Your task to perform on an android device: toggle data saver in the chrome app Image 0: 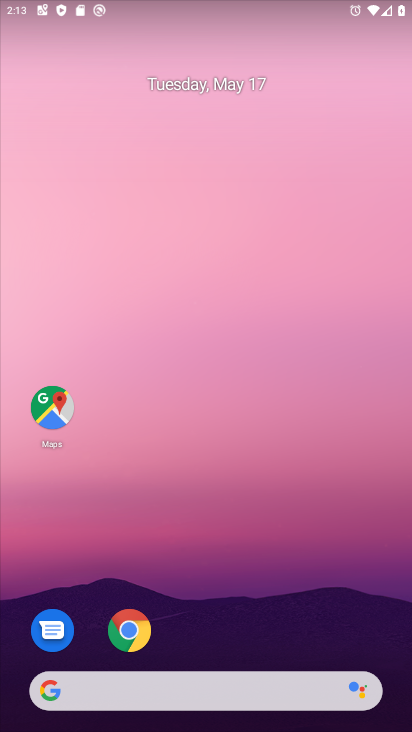
Step 0: drag from (299, 630) to (292, 184)
Your task to perform on an android device: toggle data saver in the chrome app Image 1: 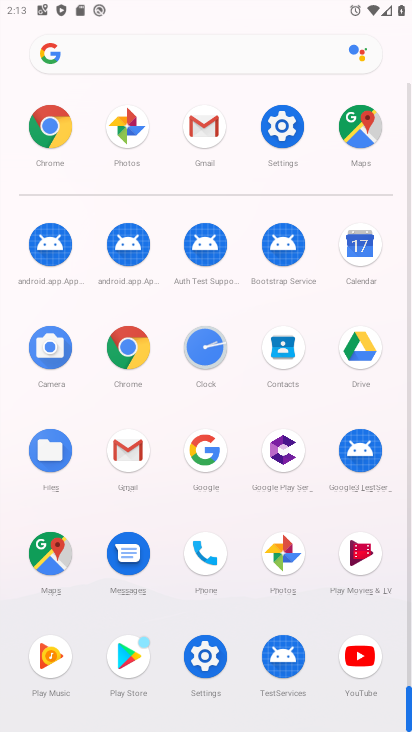
Step 1: click (125, 357)
Your task to perform on an android device: toggle data saver in the chrome app Image 2: 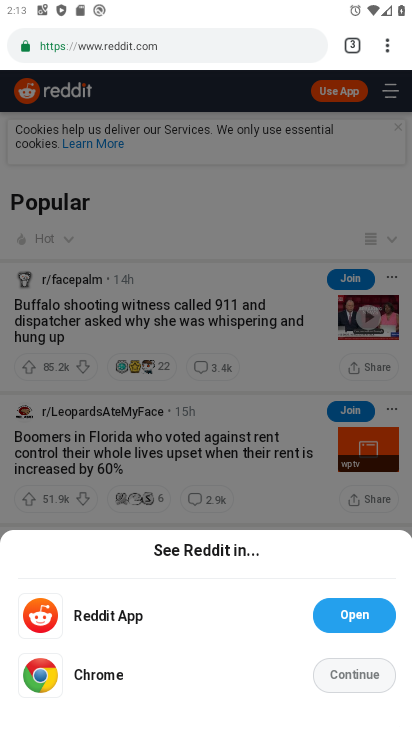
Step 2: drag from (385, 48) to (267, 563)
Your task to perform on an android device: toggle data saver in the chrome app Image 3: 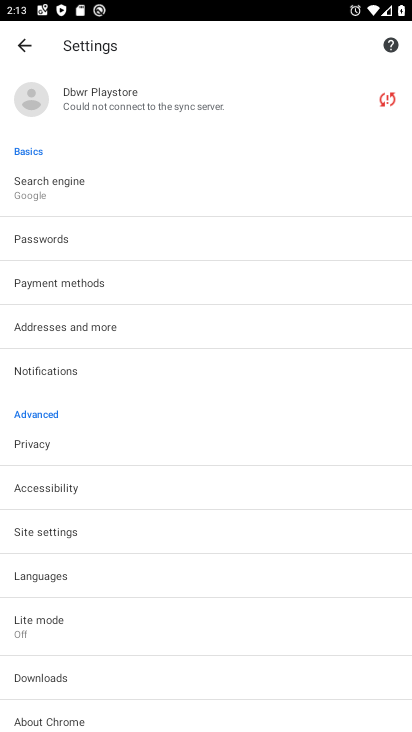
Step 3: drag from (238, 686) to (205, 333)
Your task to perform on an android device: toggle data saver in the chrome app Image 4: 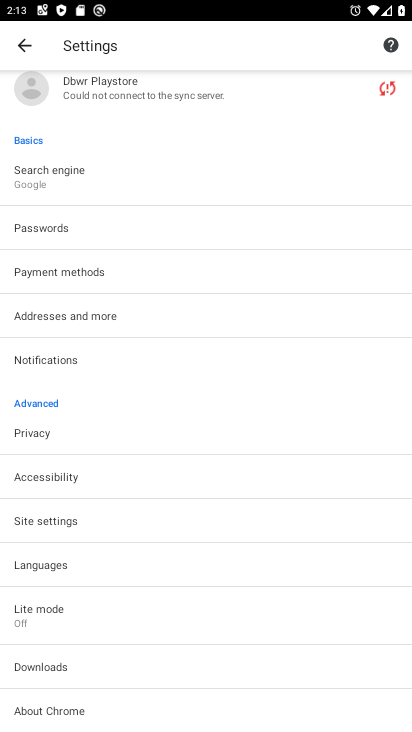
Step 4: drag from (248, 679) to (290, 245)
Your task to perform on an android device: toggle data saver in the chrome app Image 5: 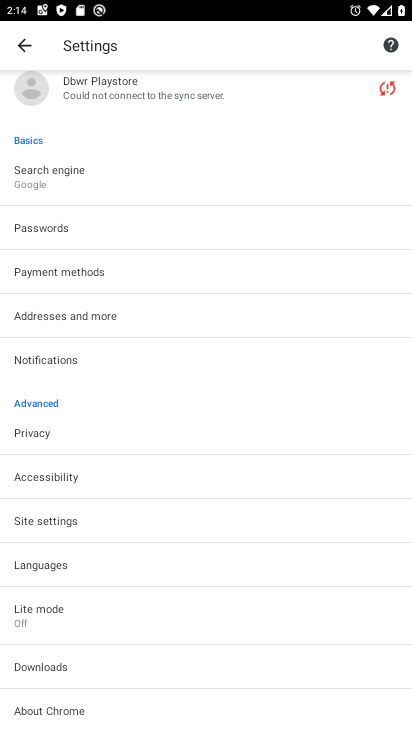
Step 5: click (151, 620)
Your task to perform on an android device: toggle data saver in the chrome app Image 6: 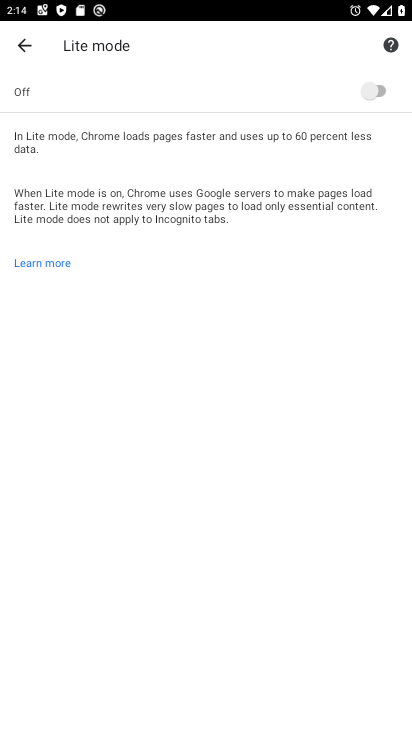
Step 6: click (382, 90)
Your task to perform on an android device: toggle data saver in the chrome app Image 7: 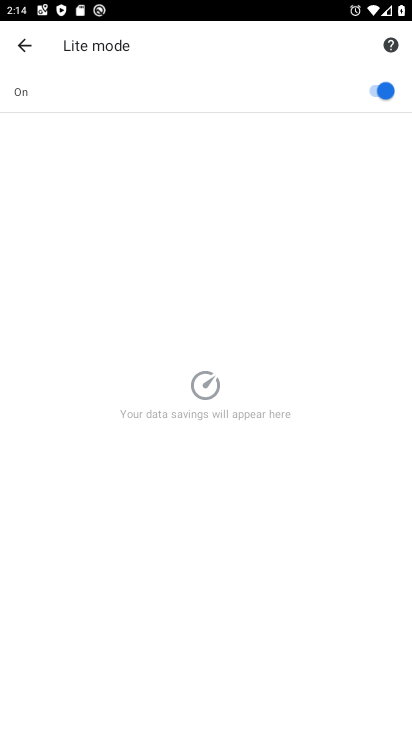
Step 7: task complete